Your task to perform on an android device: Open the calendar app, open the side menu, and click the "Day" option Image 0: 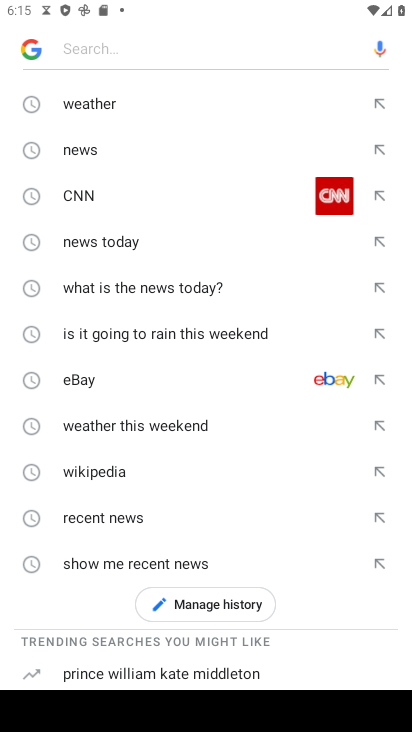
Step 0: press back button
Your task to perform on an android device: Open the calendar app, open the side menu, and click the "Day" option Image 1: 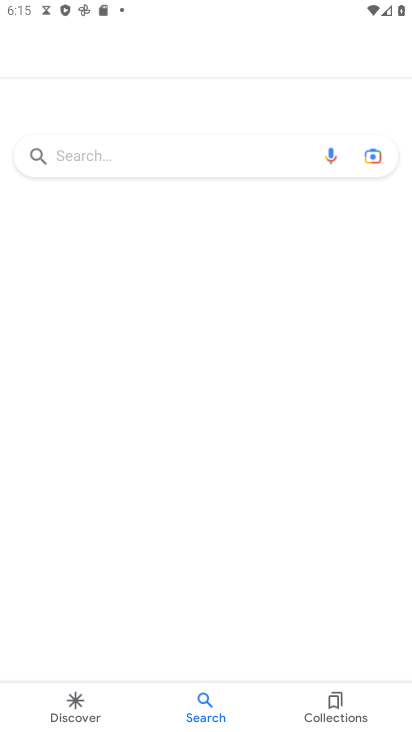
Step 1: press home button
Your task to perform on an android device: Open the calendar app, open the side menu, and click the "Day" option Image 2: 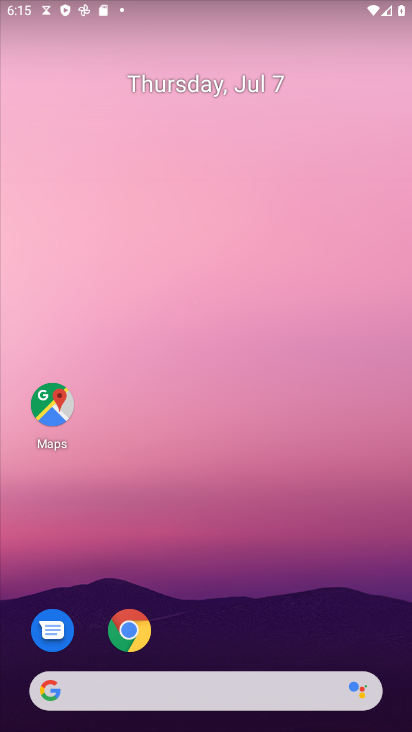
Step 2: drag from (208, 505) to (261, 127)
Your task to perform on an android device: Open the calendar app, open the side menu, and click the "Day" option Image 3: 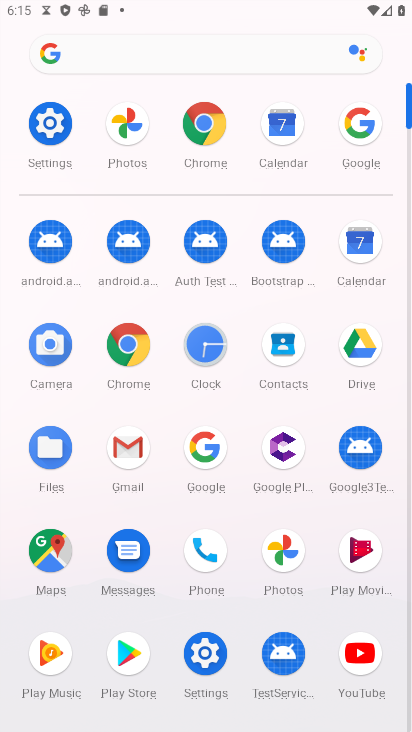
Step 3: click (346, 275)
Your task to perform on an android device: Open the calendar app, open the side menu, and click the "Day" option Image 4: 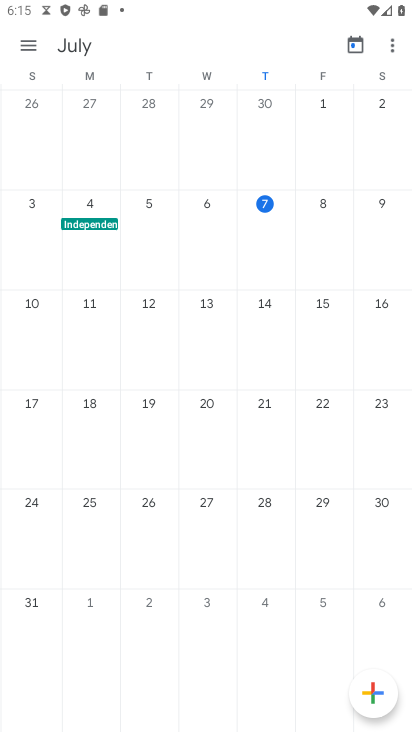
Step 4: click (31, 48)
Your task to perform on an android device: Open the calendar app, open the side menu, and click the "Day" option Image 5: 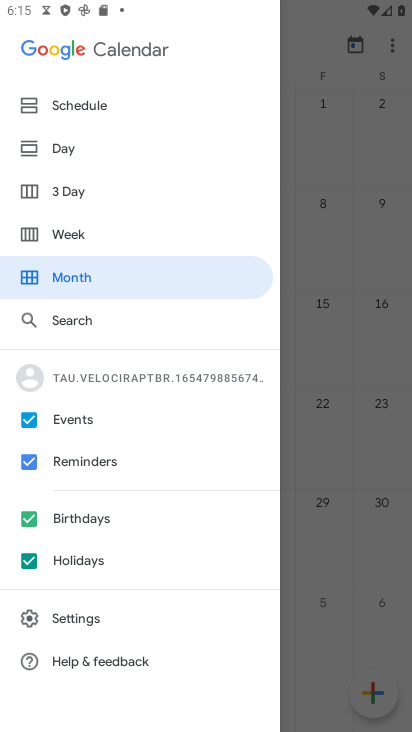
Step 5: click (34, 146)
Your task to perform on an android device: Open the calendar app, open the side menu, and click the "Day" option Image 6: 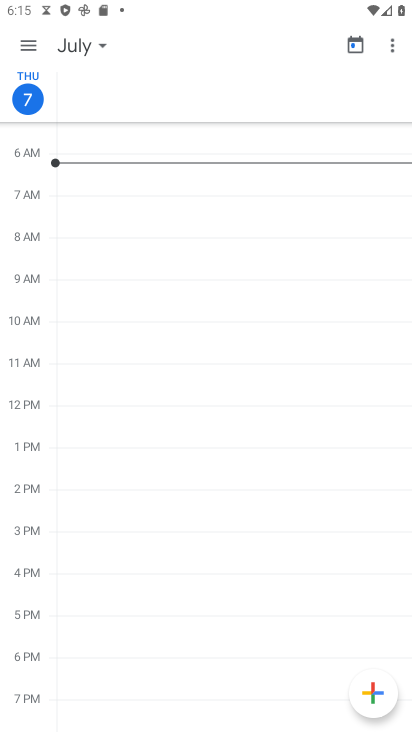
Step 6: task complete